Your task to perform on an android device: Show me productivity apps on the Play Store Image 0: 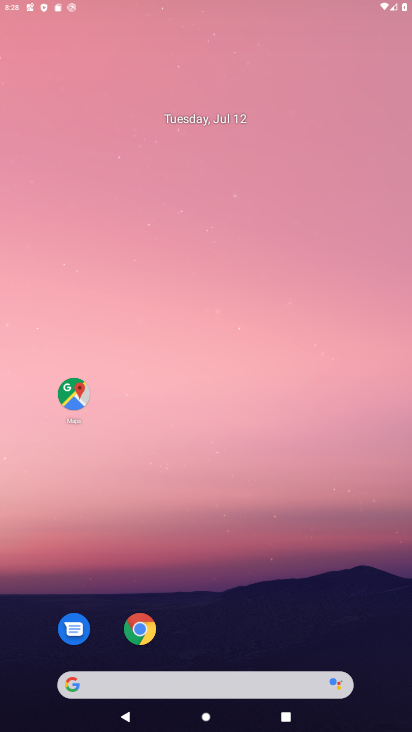
Step 0: drag from (186, 622) to (217, 175)
Your task to perform on an android device: Show me productivity apps on the Play Store Image 1: 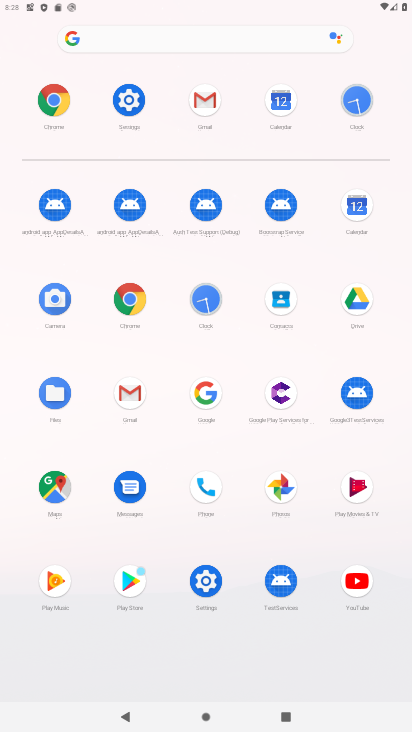
Step 1: click (125, 586)
Your task to perform on an android device: Show me productivity apps on the Play Store Image 2: 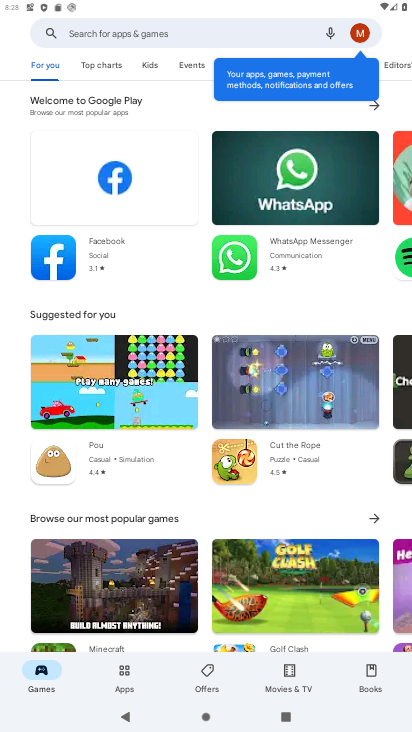
Step 2: click (106, 656)
Your task to perform on an android device: Show me productivity apps on the Play Store Image 3: 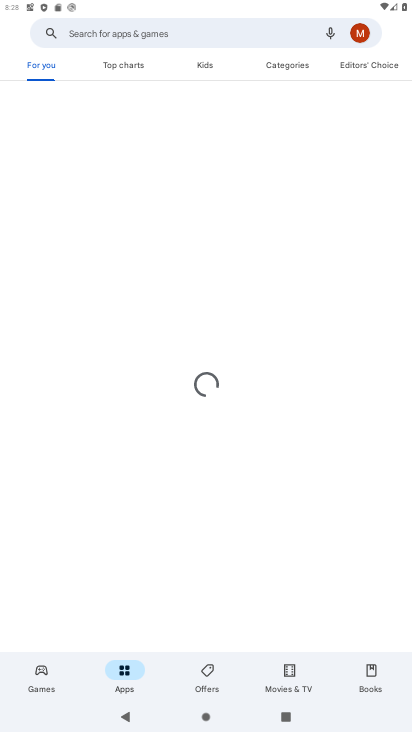
Step 3: click (123, 672)
Your task to perform on an android device: Show me productivity apps on the Play Store Image 4: 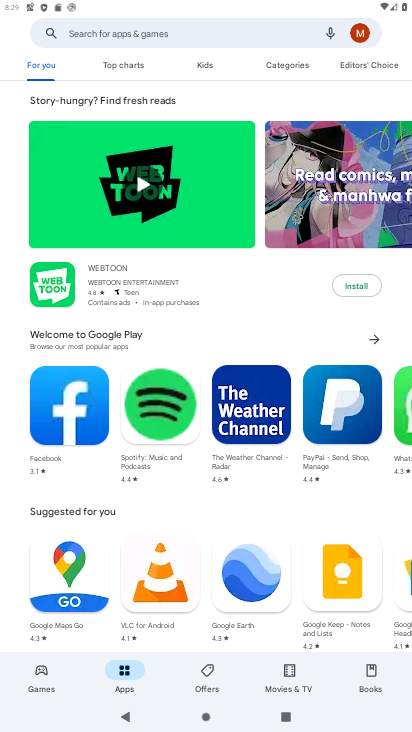
Step 4: task complete